Your task to perform on an android device: change the upload size in google photos Image 0: 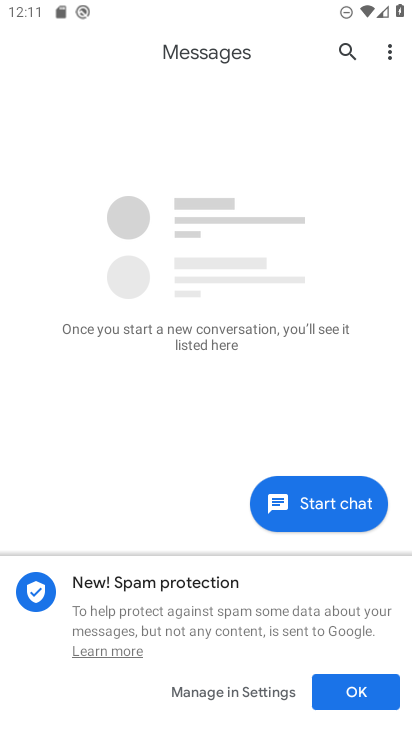
Step 0: press home button
Your task to perform on an android device: change the upload size in google photos Image 1: 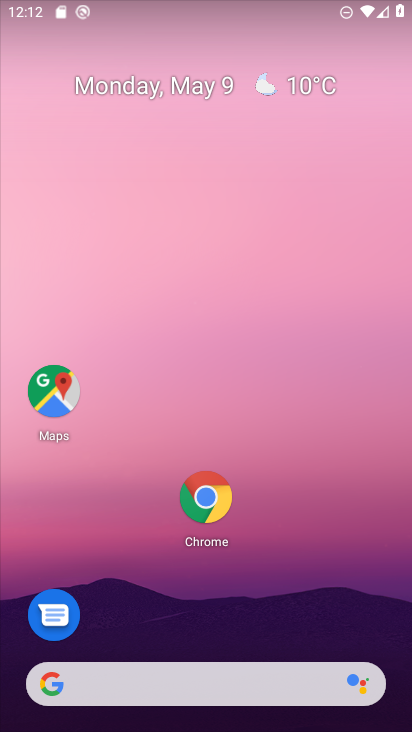
Step 1: drag from (346, 573) to (291, 112)
Your task to perform on an android device: change the upload size in google photos Image 2: 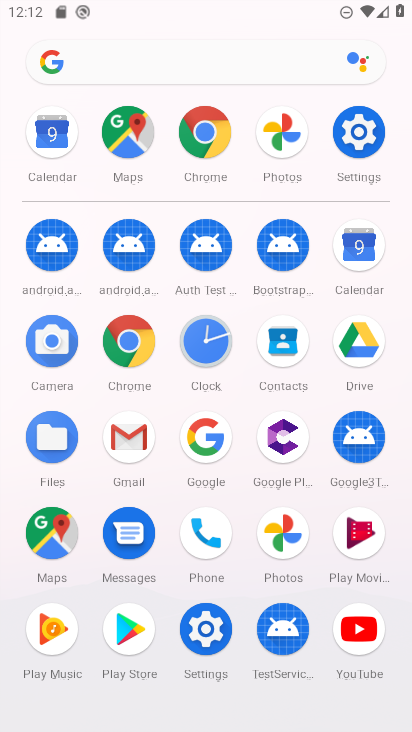
Step 2: click (281, 125)
Your task to perform on an android device: change the upload size in google photos Image 3: 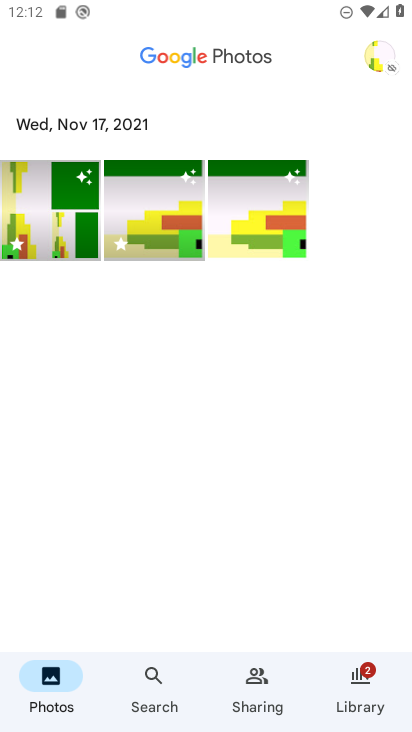
Step 3: press home button
Your task to perform on an android device: change the upload size in google photos Image 4: 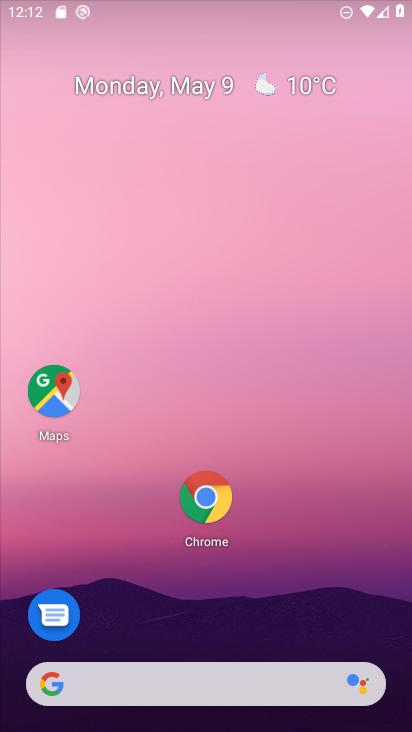
Step 4: drag from (359, 563) to (236, 0)
Your task to perform on an android device: change the upload size in google photos Image 5: 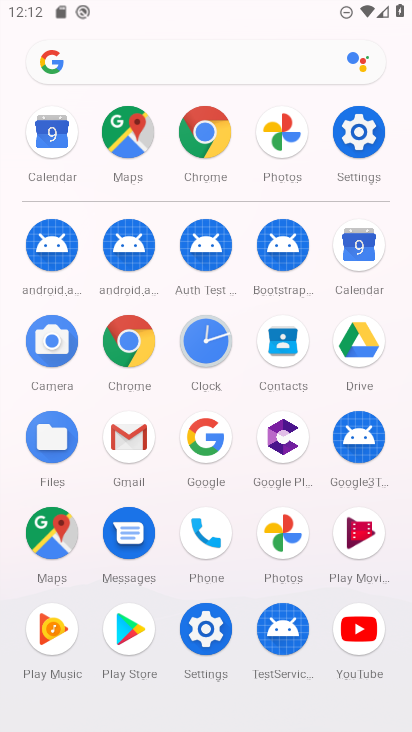
Step 5: click (281, 130)
Your task to perform on an android device: change the upload size in google photos Image 6: 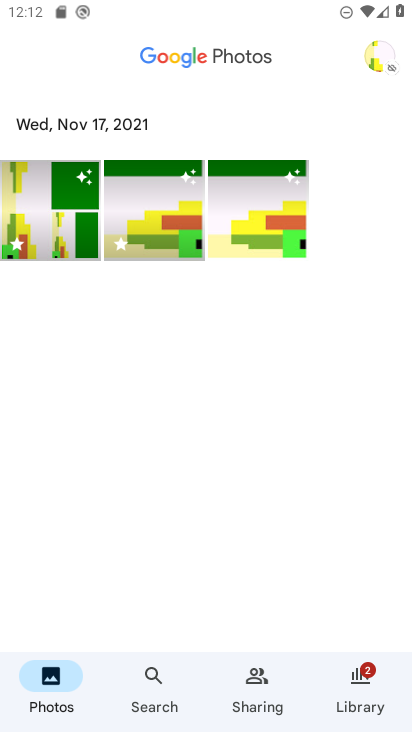
Step 6: click (383, 65)
Your task to perform on an android device: change the upload size in google photos Image 7: 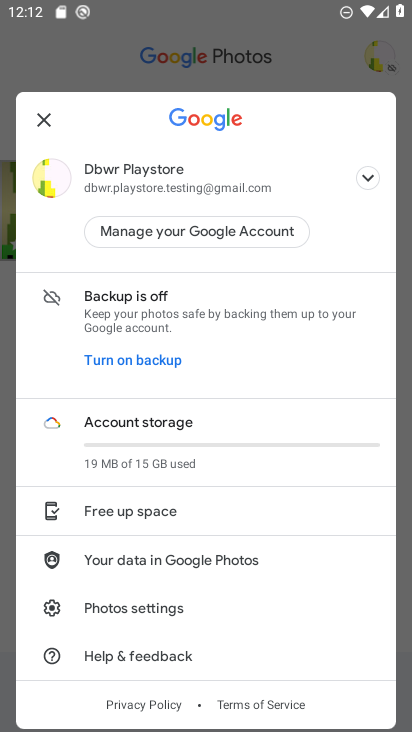
Step 7: click (178, 446)
Your task to perform on an android device: change the upload size in google photos Image 8: 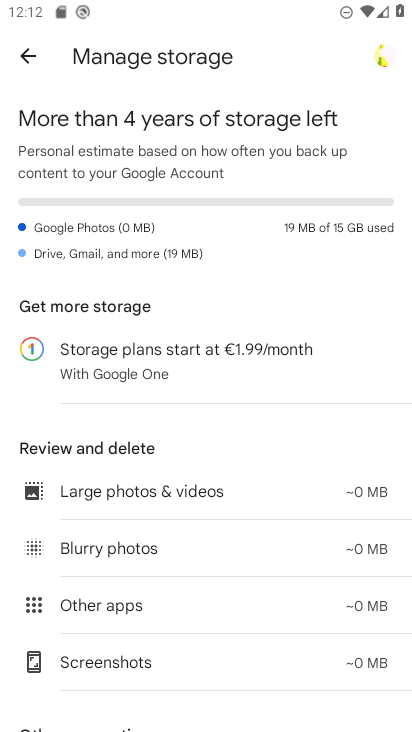
Step 8: drag from (222, 638) to (229, 152)
Your task to perform on an android device: change the upload size in google photos Image 9: 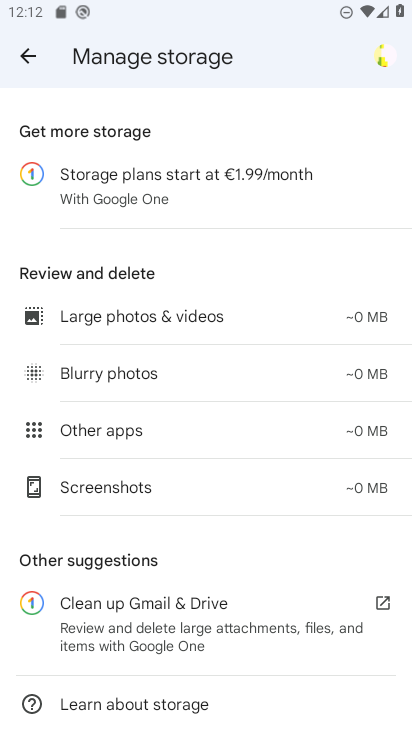
Step 9: click (23, 52)
Your task to perform on an android device: change the upload size in google photos Image 10: 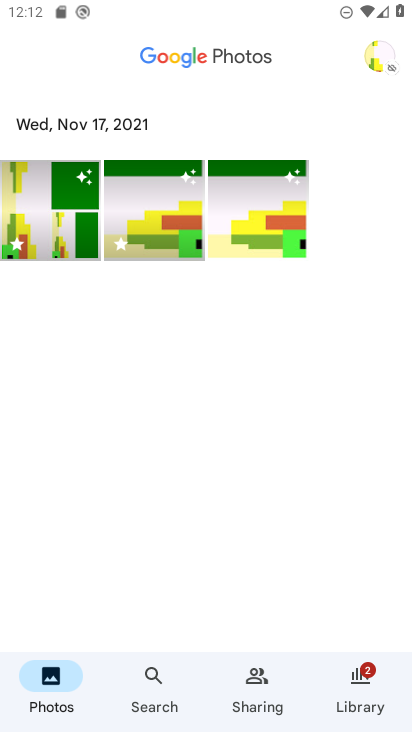
Step 10: click (377, 46)
Your task to perform on an android device: change the upload size in google photos Image 11: 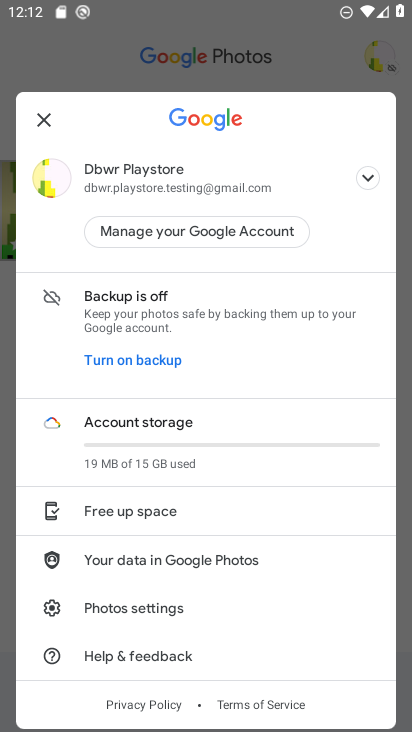
Step 11: click (157, 600)
Your task to perform on an android device: change the upload size in google photos Image 12: 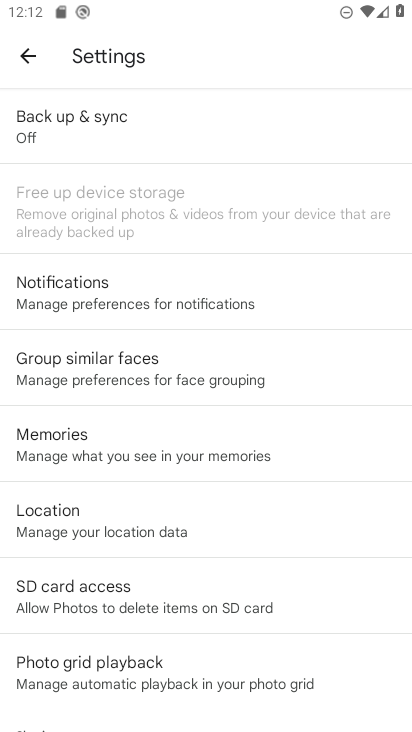
Step 12: drag from (240, 603) to (298, 115)
Your task to perform on an android device: change the upload size in google photos Image 13: 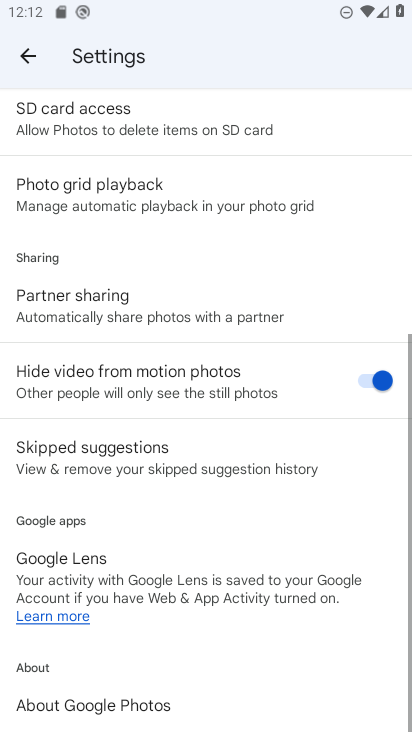
Step 13: drag from (173, 656) to (252, 182)
Your task to perform on an android device: change the upload size in google photos Image 14: 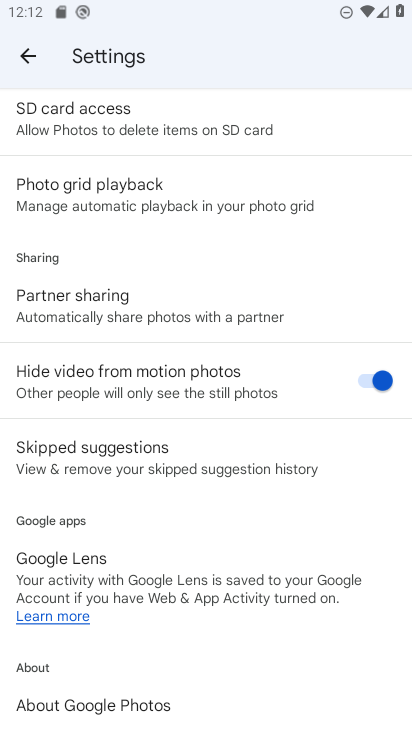
Step 14: click (29, 64)
Your task to perform on an android device: change the upload size in google photos Image 15: 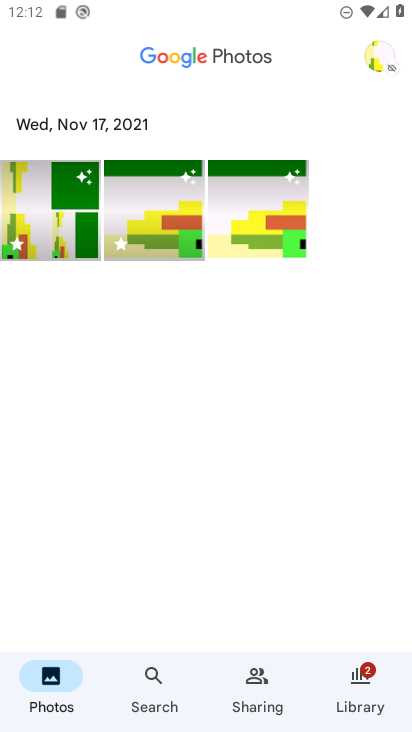
Step 15: click (369, 48)
Your task to perform on an android device: change the upload size in google photos Image 16: 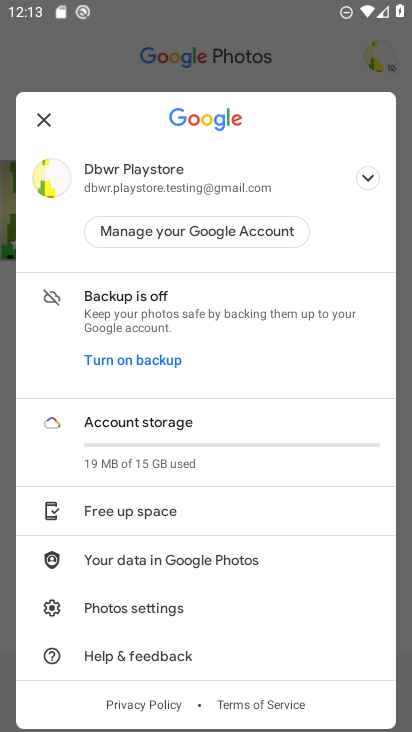
Step 16: click (152, 509)
Your task to perform on an android device: change the upload size in google photos Image 17: 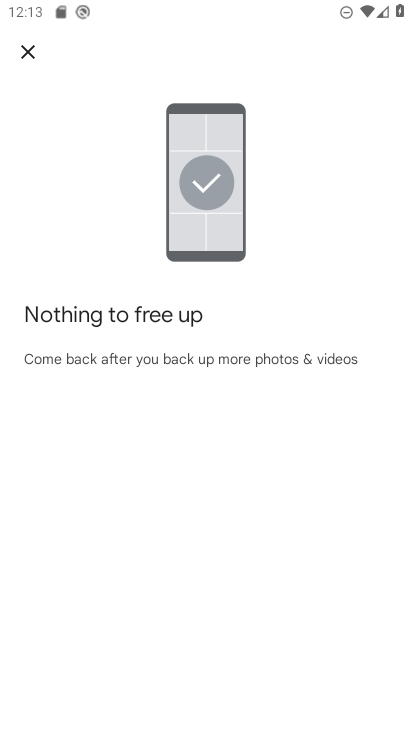
Step 17: click (27, 41)
Your task to perform on an android device: change the upload size in google photos Image 18: 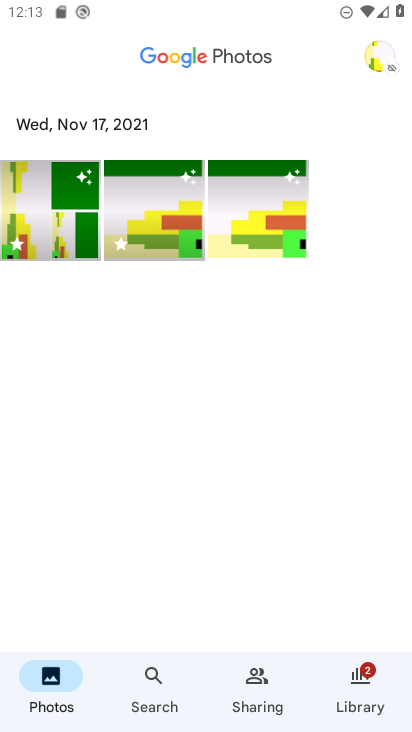
Step 18: click (377, 53)
Your task to perform on an android device: change the upload size in google photos Image 19: 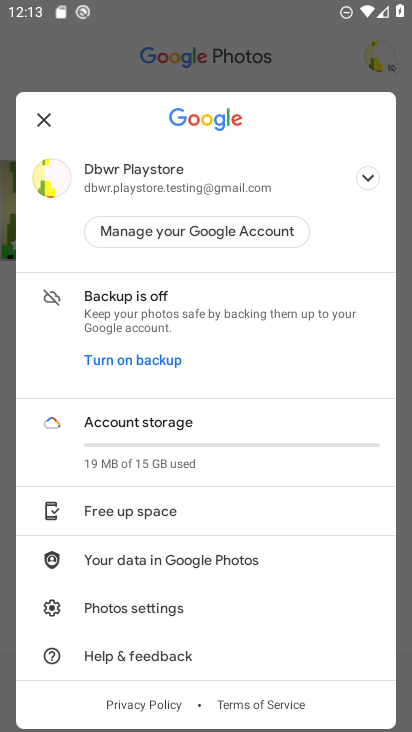
Step 19: click (207, 310)
Your task to perform on an android device: change the upload size in google photos Image 20: 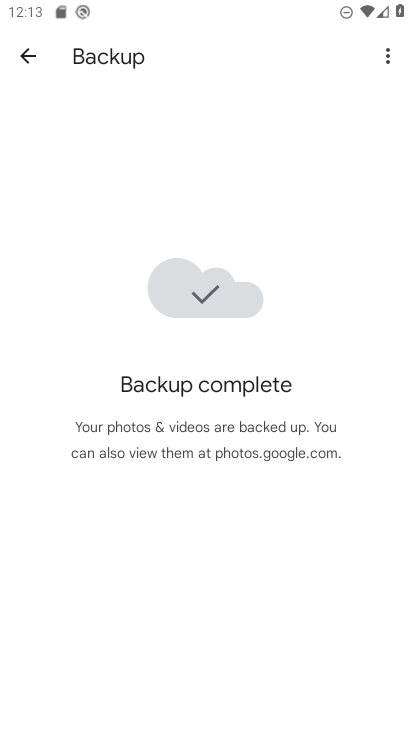
Step 20: click (27, 44)
Your task to perform on an android device: change the upload size in google photos Image 21: 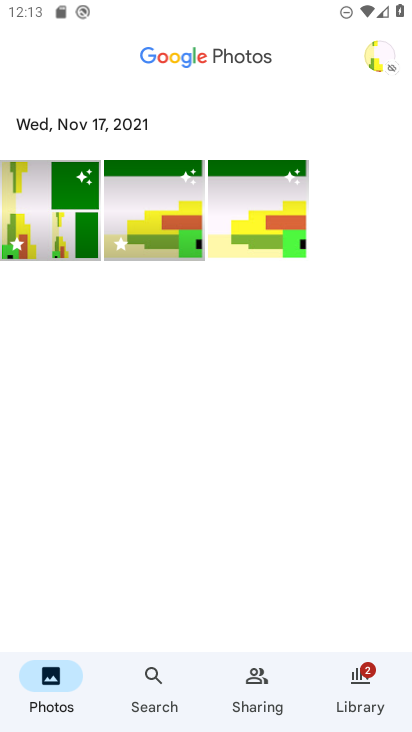
Step 21: click (385, 55)
Your task to perform on an android device: change the upload size in google photos Image 22: 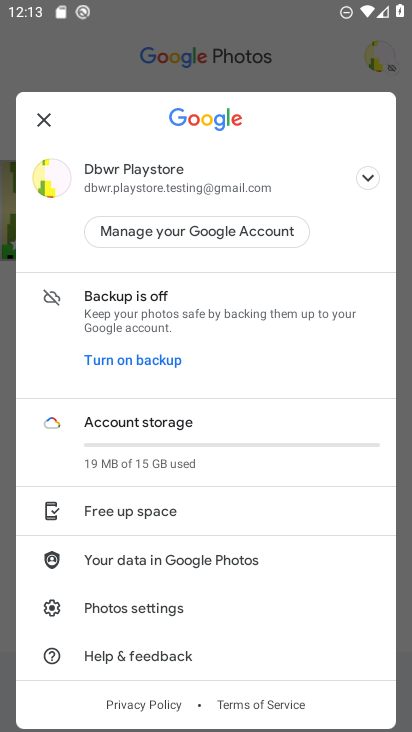
Step 22: drag from (202, 637) to (204, 260)
Your task to perform on an android device: change the upload size in google photos Image 23: 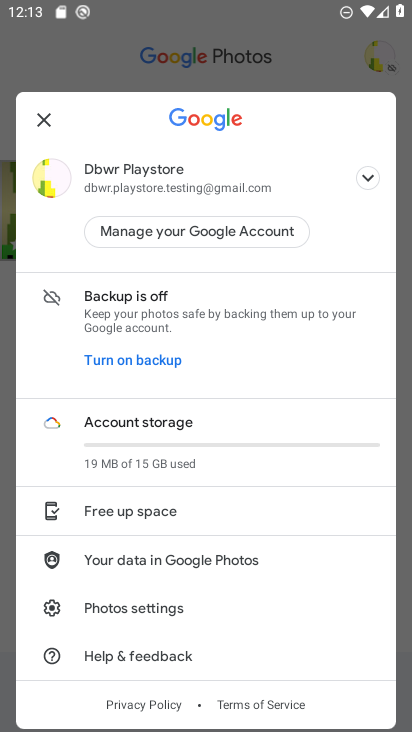
Step 23: click (131, 620)
Your task to perform on an android device: change the upload size in google photos Image 24: 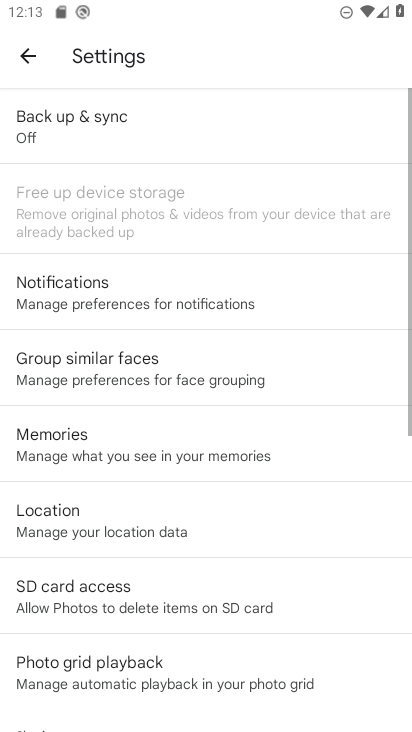
Step 24: drag from (297, 583) to (358, 201)
Your task to perform on an android device: change the upload size in google photos Image 25: 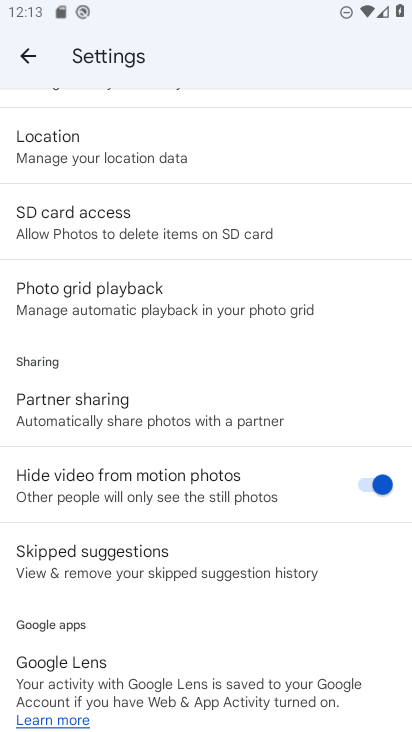
Step 25: drag from (262, 628) to (274, 187)
Your task to perform on an android device: change the upload size in google photos Image 26: 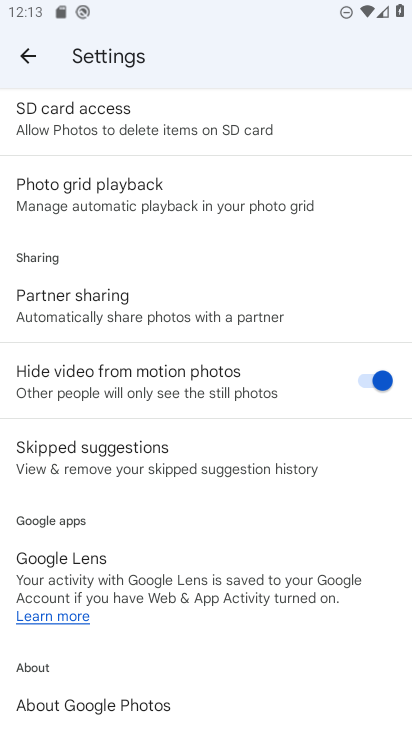
Step 26: drag from (228, 609) to (209, 373)
Your task to perform on an android device: change the upload size in google photos Image 27: 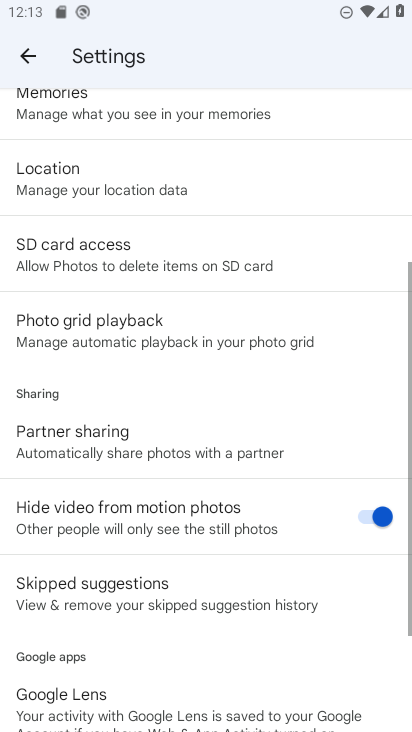
Step 27: drag from (183, 175) to (195, 480)
Your task to perform on an android device: change the upload size in google photos Image 28: 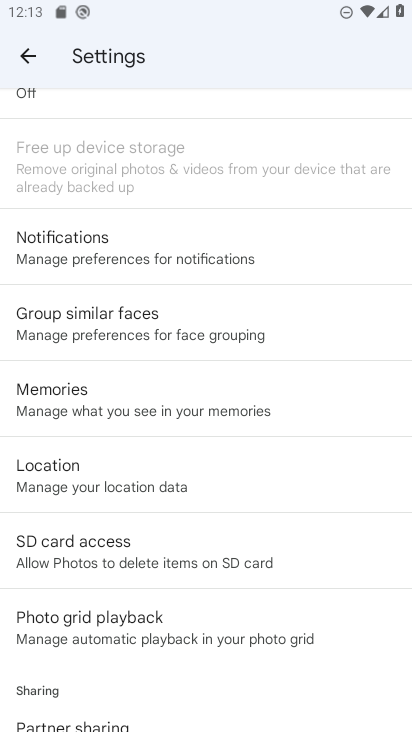
Step 28: drag from (196, 303) to (195, 555)
Your task to perform on an android device: change the upload size in google photos Image 29: 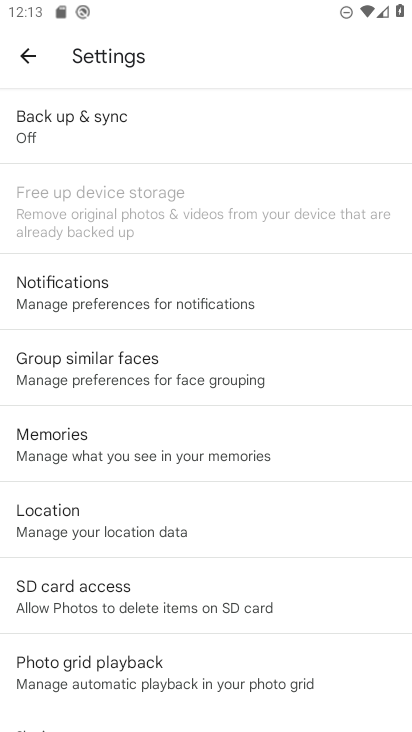
Step 29: drag from (196, 257) to (199, 433)
Your task to perform on an android device: change the upload size in google photos Image 30: 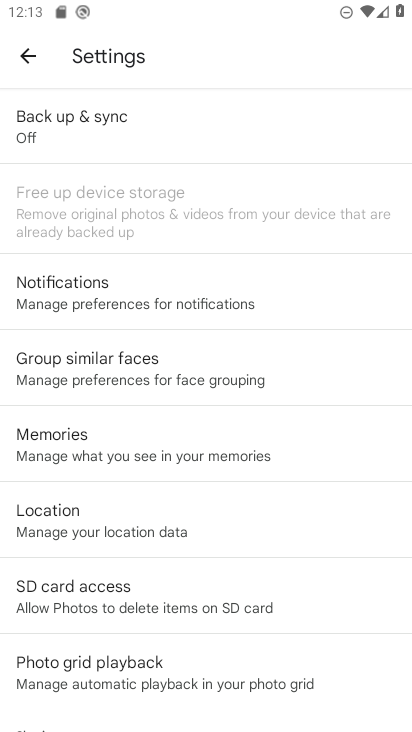
Step 30: click (153, 139)
Your task to perform on an android device: change the upload size in google photos Image 31: 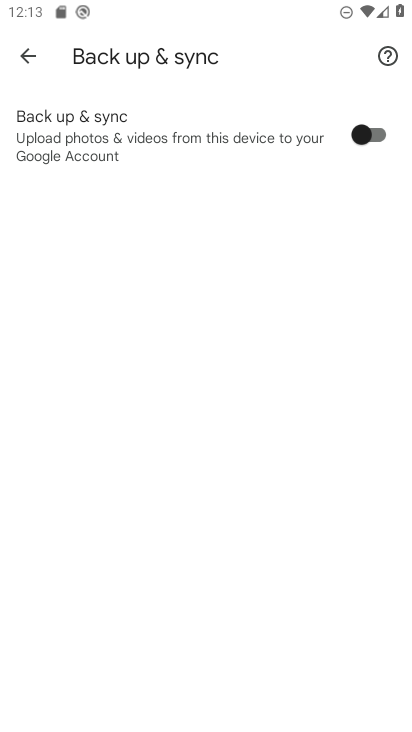
Step 31: click (374, 135)
Your task to perform on an android device: change the upload size in google photos Image 32: 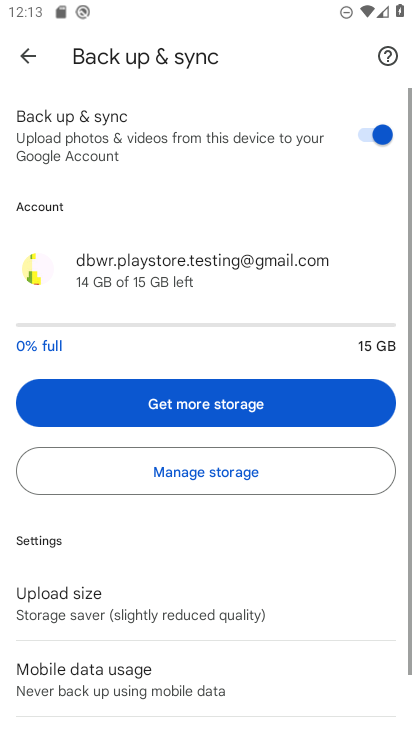
Step 32: drag from (224, 567) to (246, 201)
Your task to perform on an android device: change the upload size in google photos Image 33: 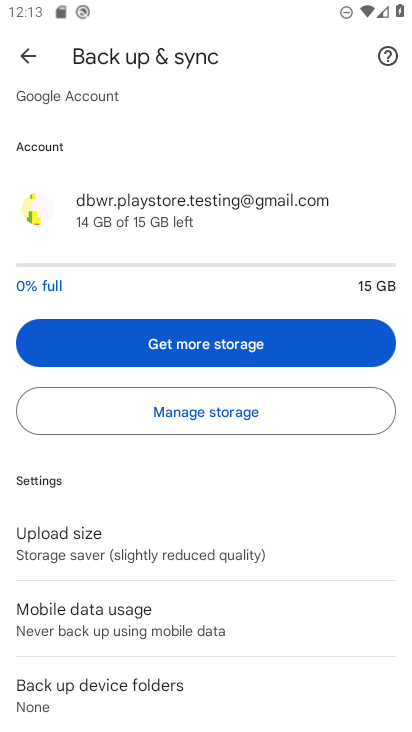
Step 33: click (146, 539)
Your task to perform on an android device: change the upload size in google photos Image 34: 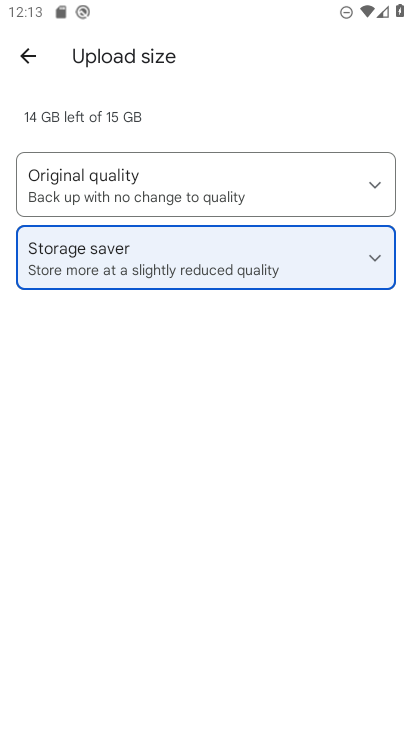
Step 34: click (219, 203)
Your task to perform on an android device: change the upload size in google photos Image 35: 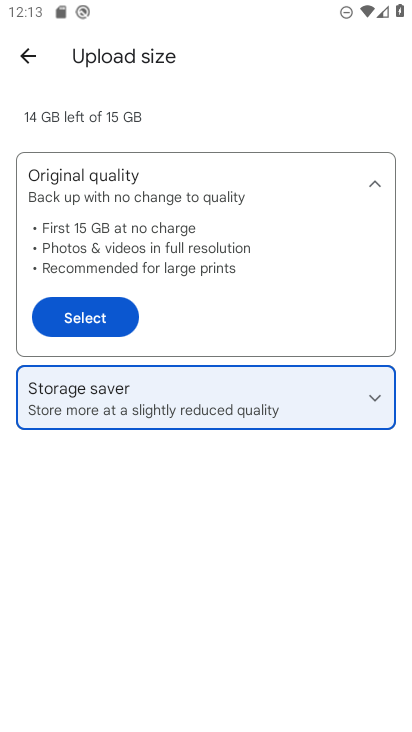
Step 35: click (118, 313)
Your task to perform on an android device: change the upload size in google photos Image 36: 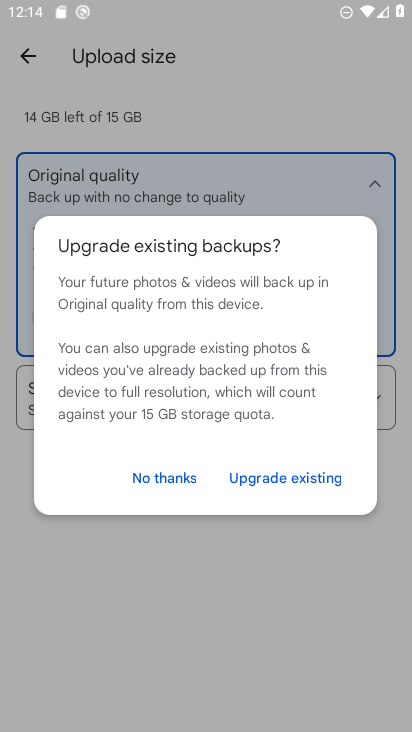
Step 36: click (173, 485)
Your task to perform on an android device: change the upload size in google photos Image 37: 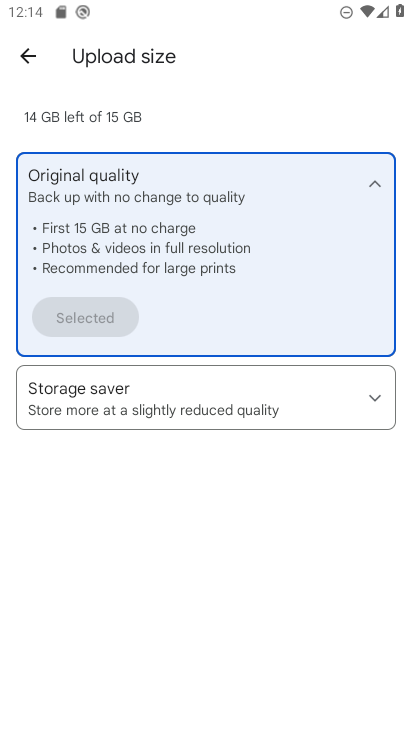
Step 37: task complete